Your task to perform on an android device: turn on data saver in the chrome app Image 0: 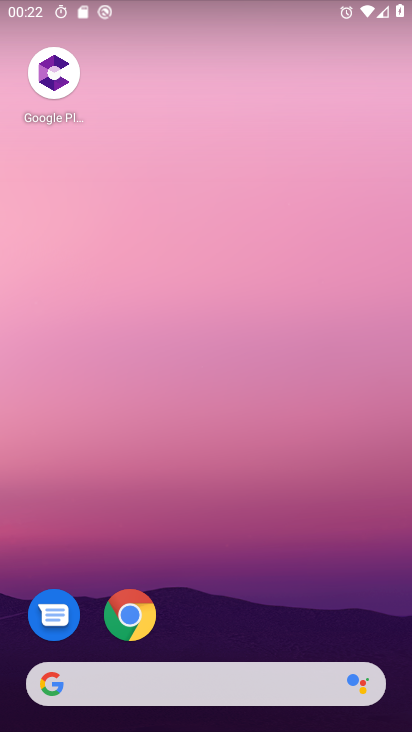
Step 0: drag from (284, 554) to (292, 24)
Your task to perform on an android device: turn on data saver in the chrome app Image 1: 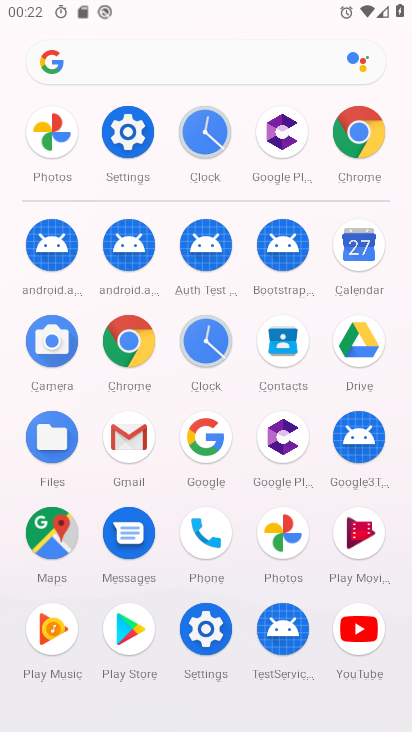
Step 1: drag from (280, 495) to (302, 47)
Your task to perform on an android device: turn on data saver in the chrome app Image 2: 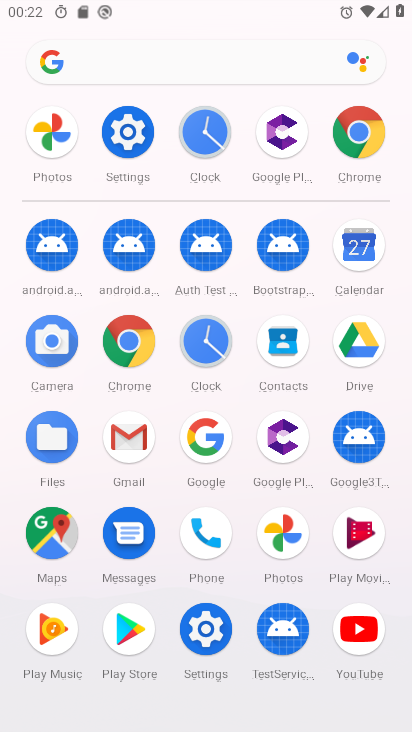
Step 2: click (120, 338)
Your task to perform on an android device: turn on data saver in the chrome app Image 3: 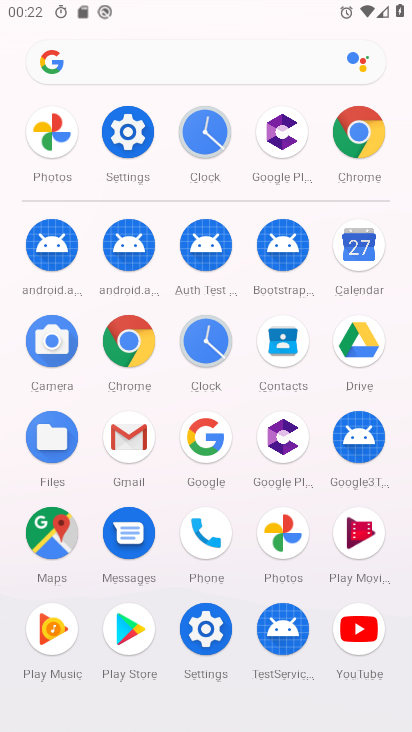
Step 3: click (131, 346)
Your task to perform on an android device: turn on data saver in the chrome app Image 4: 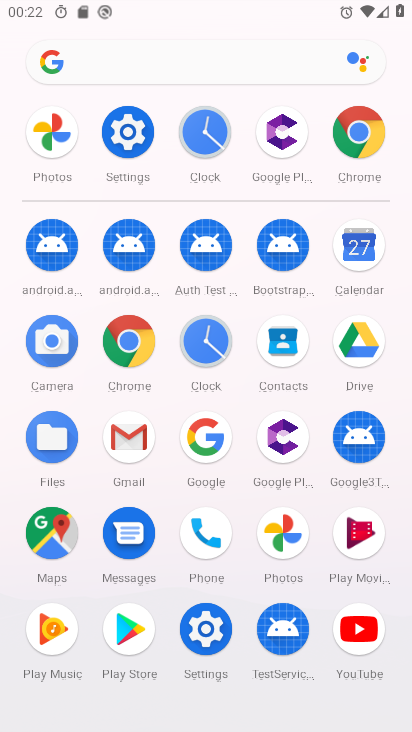
Step 4: click (132, 344)
Your task to perform on an android device: turn on data saver in the chrome app Image 5: 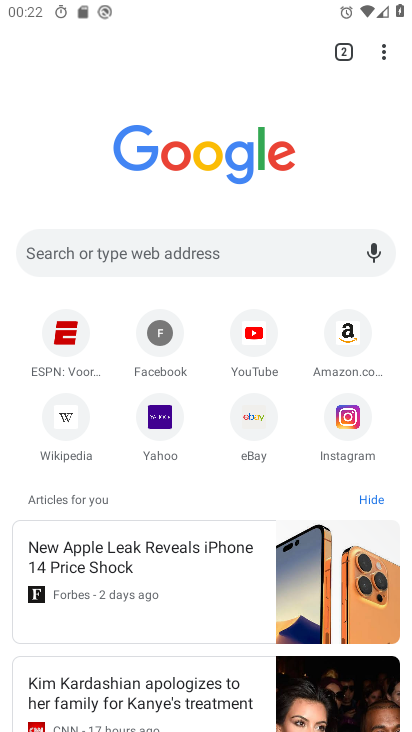
Step 5: drag from (376, 61) to (207, 448)
Your task to perform on an android device: turn on data saver in the chrome app Image 6: 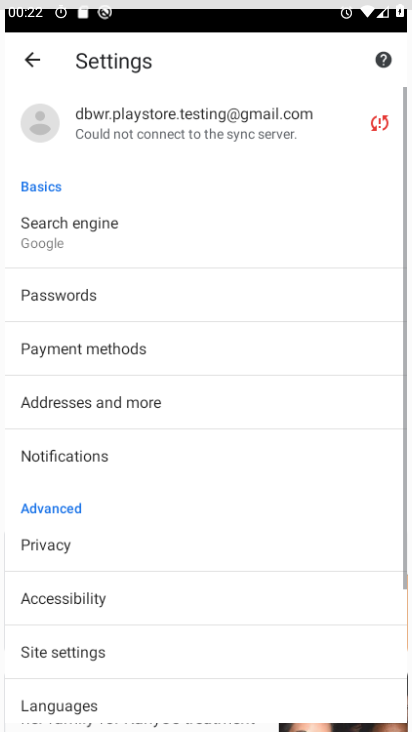
Step 6: click (207, 448)
Your task to perform on an android device: turn on data saver in the chrome app Image 7: 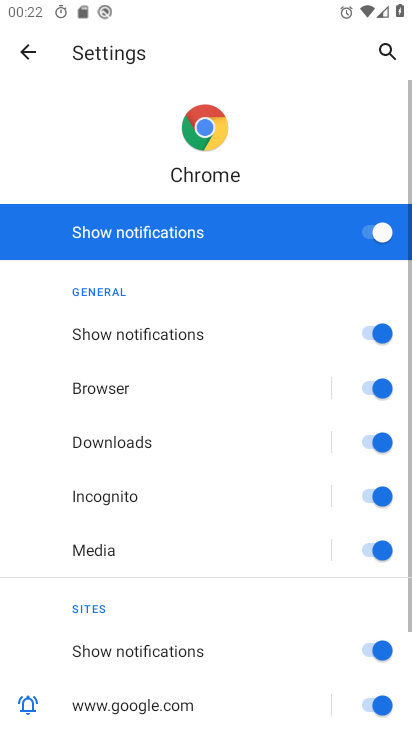
Step 7: click (23, 50)
Your task to perform on an android device: turn on data saver in the chrome app Image 8: 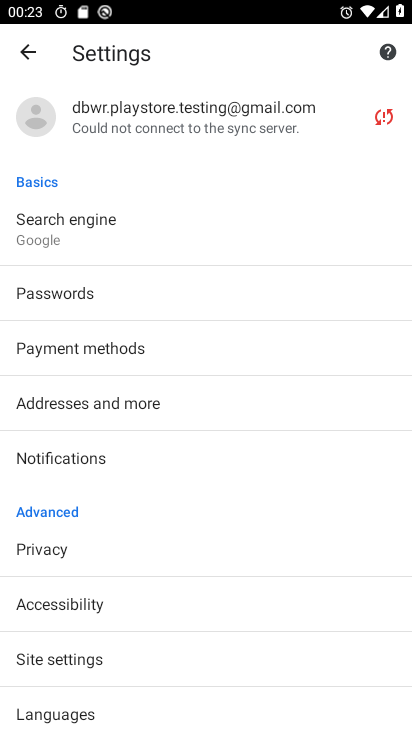
Step 8: drag from (133, 540) to (133, 298)
Your task to perform on an android device: turn on data saver in the chrome app Image 9: 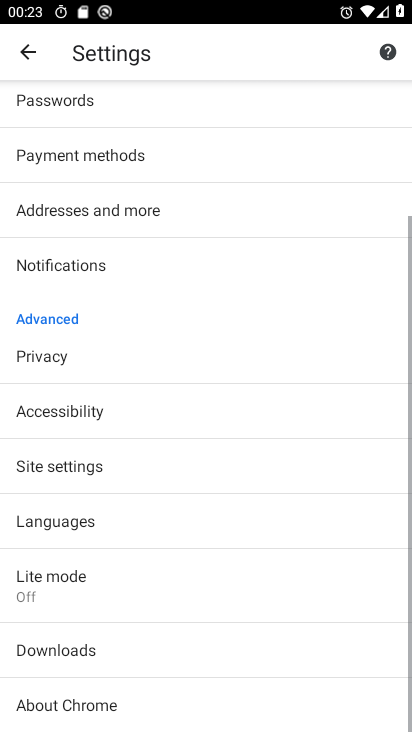
Step 9: drag from (170, 416) to (194, 228)
Your task to perform on an android device: turn on data saver in the chrome app Image 10: 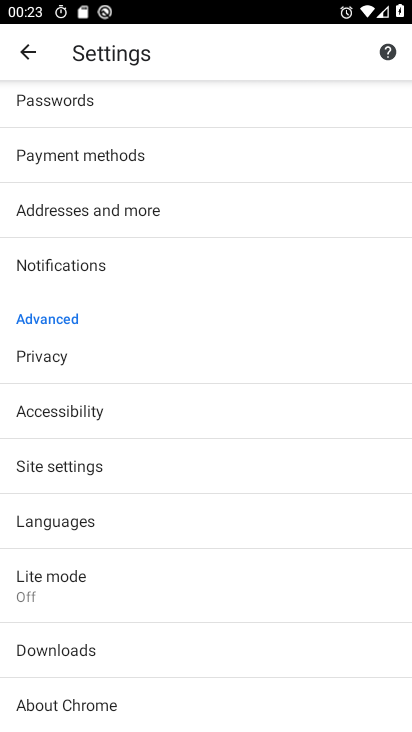
Step 10: click (60, 569)
Your task to perform on an android device: turn on data saver in the chrome app Image 11: 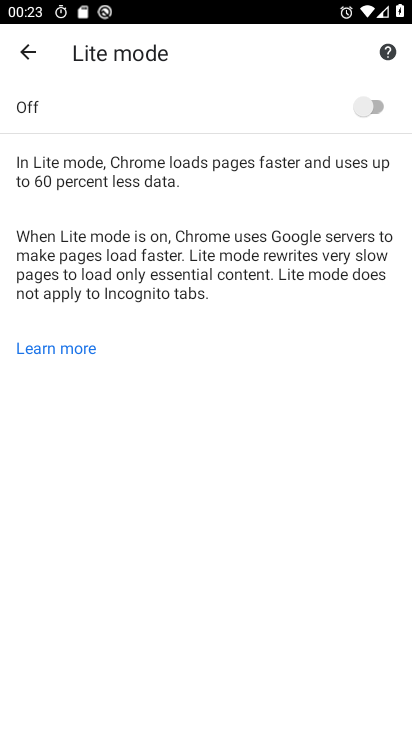
Step 11: click (366, 109)
Your task to perform on an android device: turn on data saver in the chrome app Image 12: 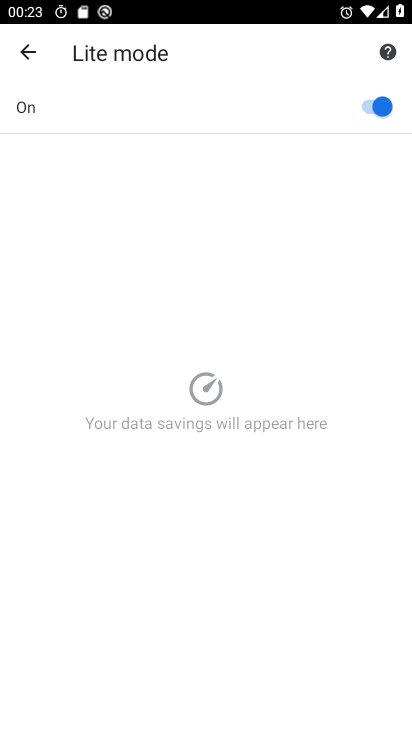
Step 12: task complete